Your task to perform on an android device: Search for seafood restaurants on Google Maps Image 0: 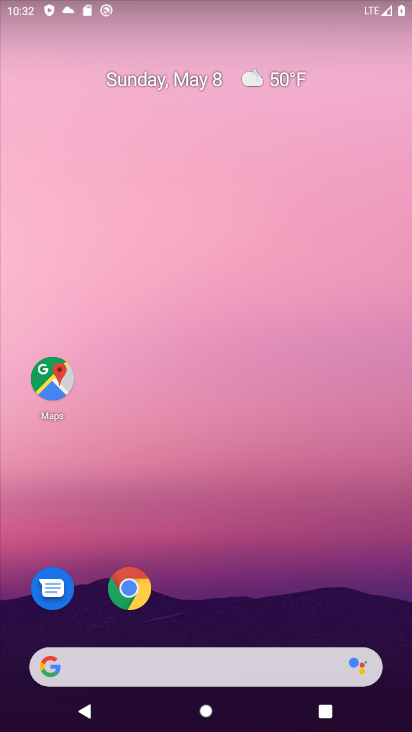
Step 0: click (56, 371)
Your task to perform on an android device: Search for seafood restaurants on Google Maps Image 1: 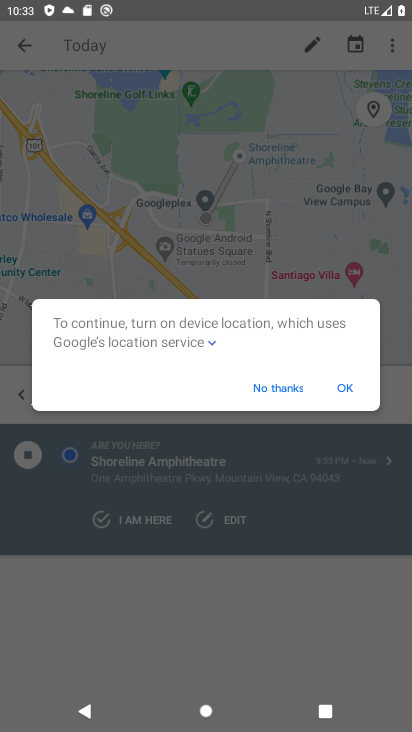
Step 1: click (274, 383)
Your task to perform on an android device: Search for seafood restaurants on Google Maps Image 2: 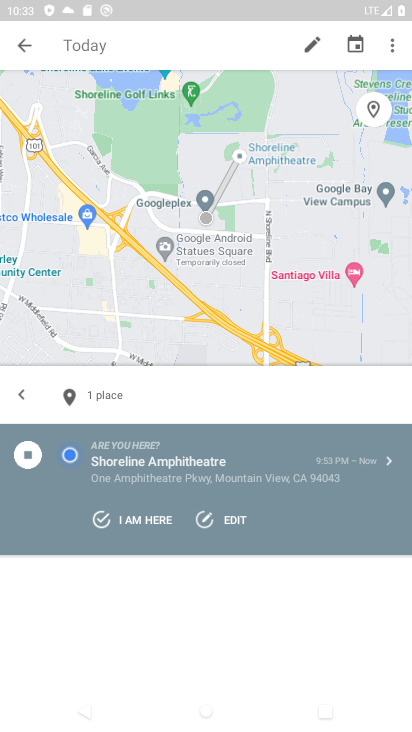
Step 2: click (29, 51)
Your task to perform on an android device: Search for seafood restaurants on Google Maps Image 3: 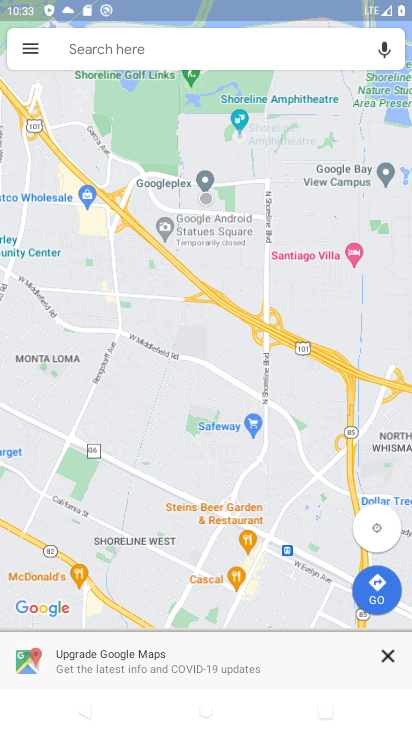
Step 3: click (171, 48)
Your task to perform on an android device: Search for seafood restaurants on Google Maps Image 4: 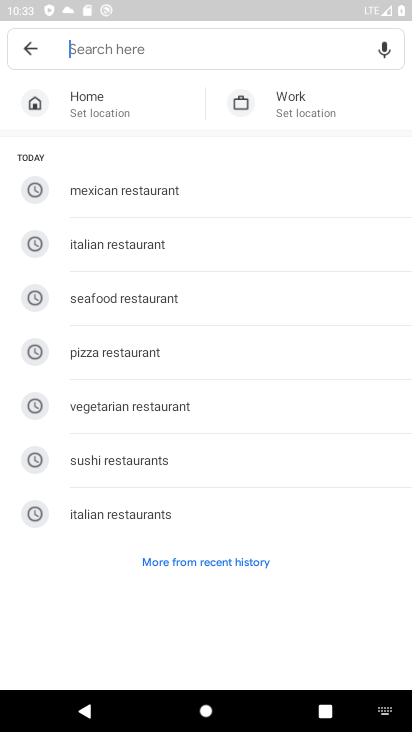
Step 4: click (125, 298)
Your task to perform on an android device: Search for seafood restaurants on Google Maps Image 5: 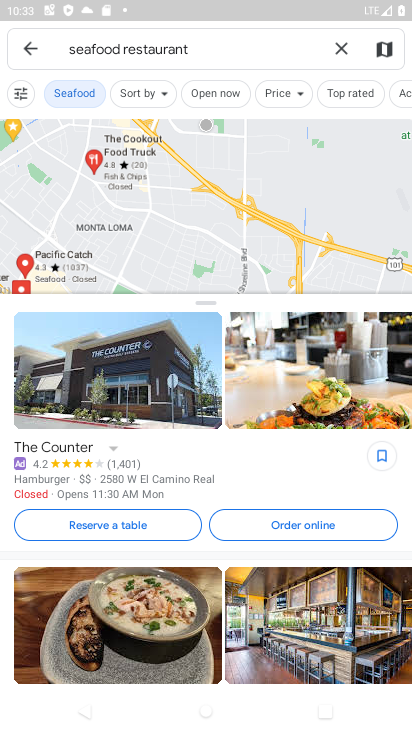
Step 5: task complete